Your task to perform on an android device: Go to ESPN.com Image 0: 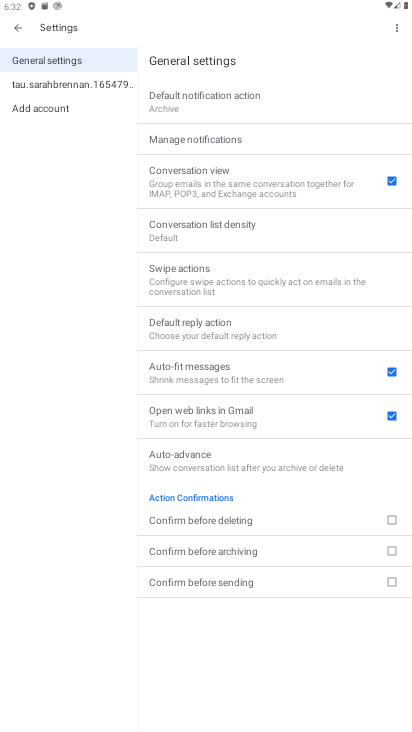
Step 0: press home button
Your task to perform on an android device: Go to ESPN.com Image 1: 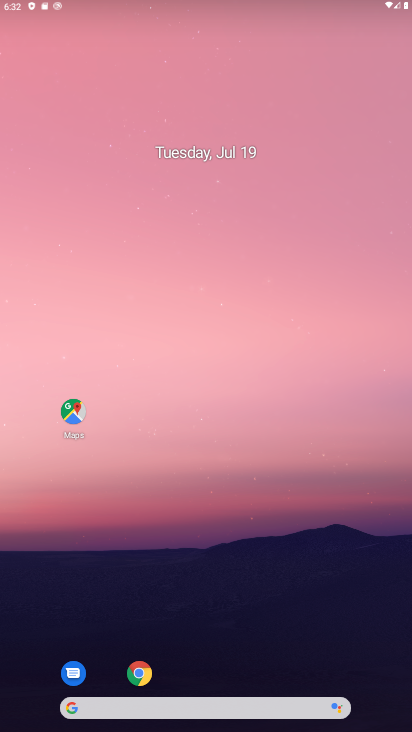
Step 1: drag from (381, 661) to (175, 44)
Your task to perform on an android device: Go to ESPN.com Image 2: 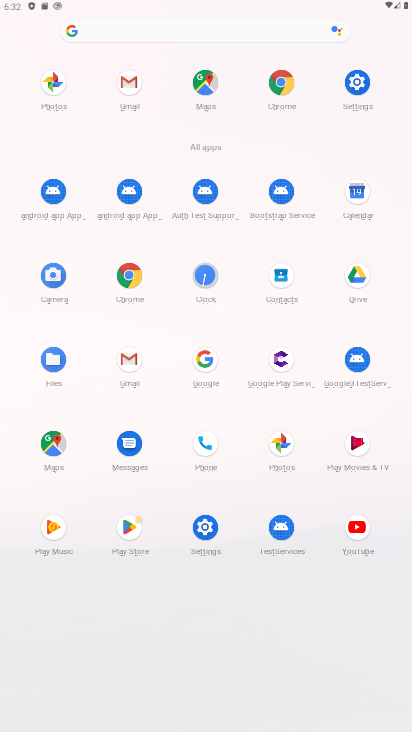
Step 2: click (206, 361)
Your task to perform on an android device: Go to ESPN.com Image 3: 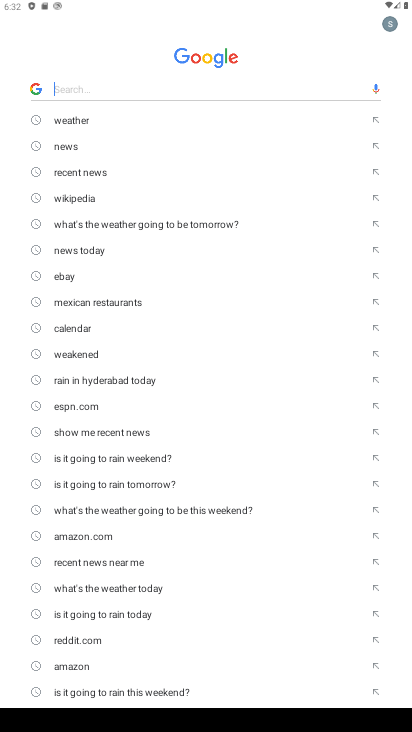
Step 3: type "ESPN.com"
Your task to perform on an android device: Go to ESPN.com Image 4: 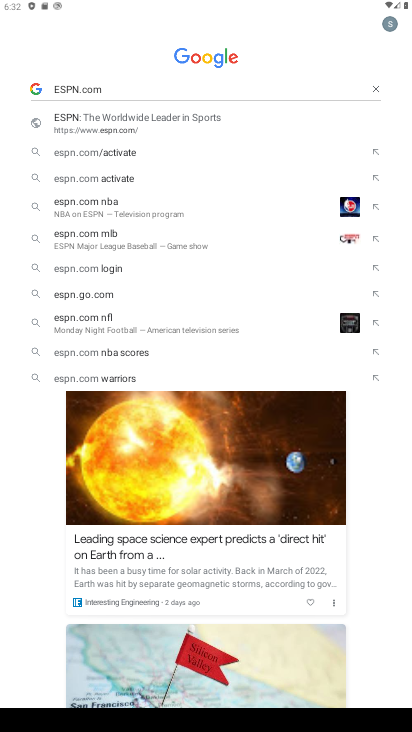
Step 4: click (94, 125)
Your task to perform on an android device: Go to ESPN.com Image 5: 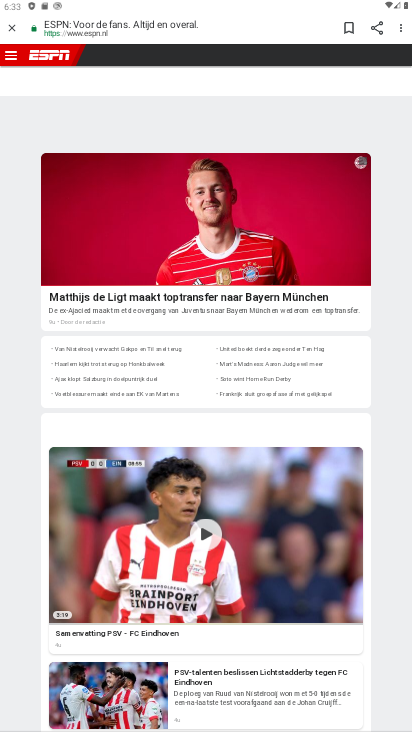
Step 5: task complete